Your task to perform on an android device: What's the weather going to be this weekend? Image 0: 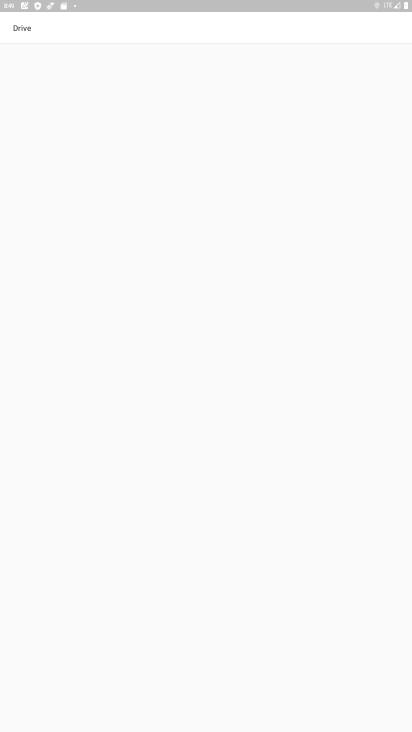
Step 0: press home button
Your task to perform on an android device: What's the weather going to be this weekend? Image 1: 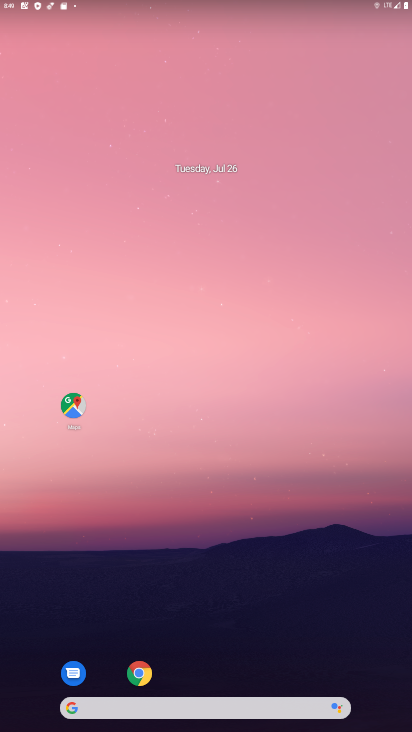
Step 1: drag from (301, 655) to (358, 99)
Your task to perform on an android device: What's the weather going to be this weekend? Image 2: 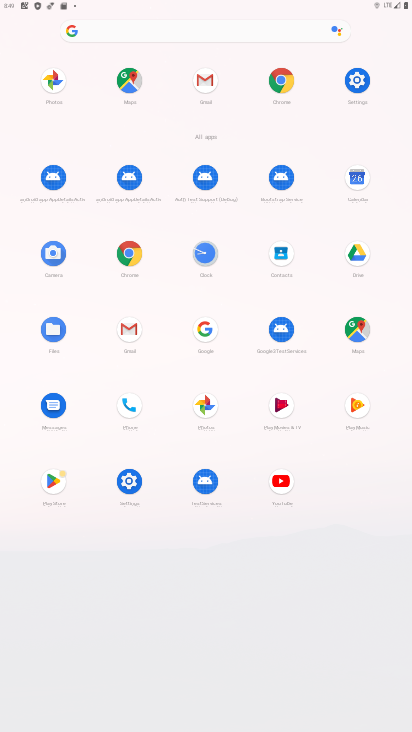
Step 2: click (204, 336)
Your task to perform on an android device: What's the weather going to be this weekend? Image 3: 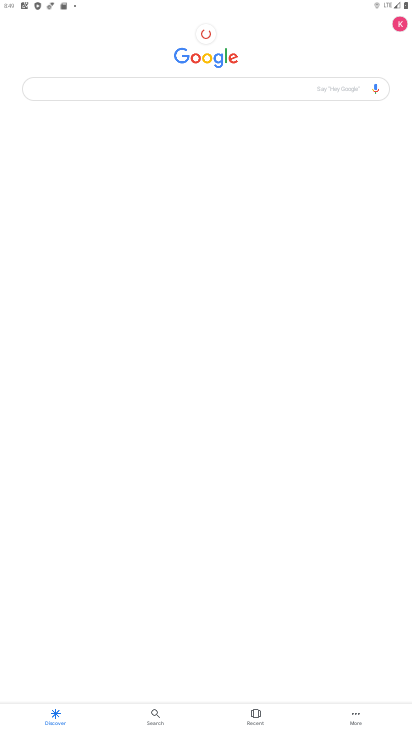
Step 3: click (202, 83)
Your task to perform on an android device: What's the weather going to be this weekend? Image 4: 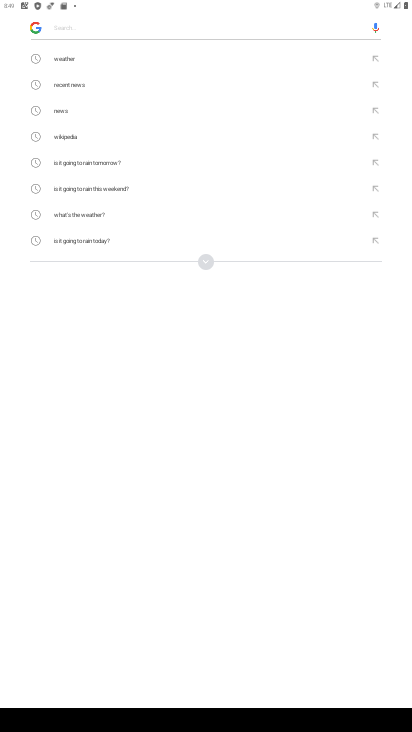
Step 4: type "weather going to be this weekend"
Your task to perform on an android device: What's the weather going to be this weekend? Image 5: 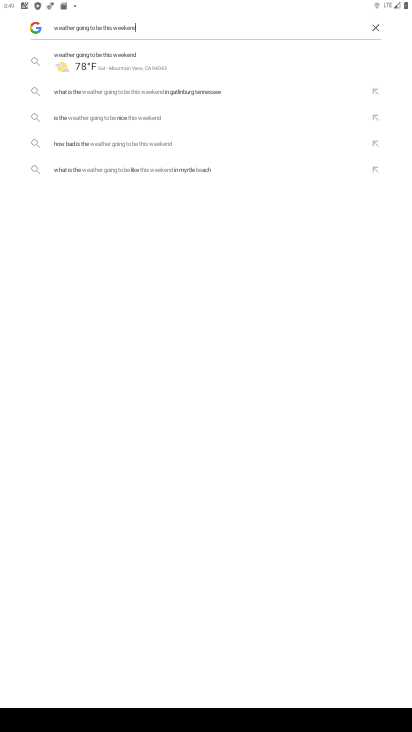
Step 5: click (102, 76)
Your task to perform on an android device: What's the weather going to be this weekend? Image 6: 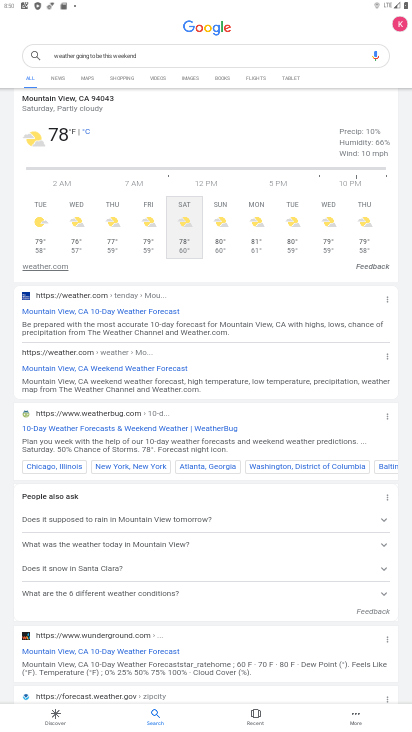
Step 6: task complete